Your task to perform on an android device: turn off location history Image 0: 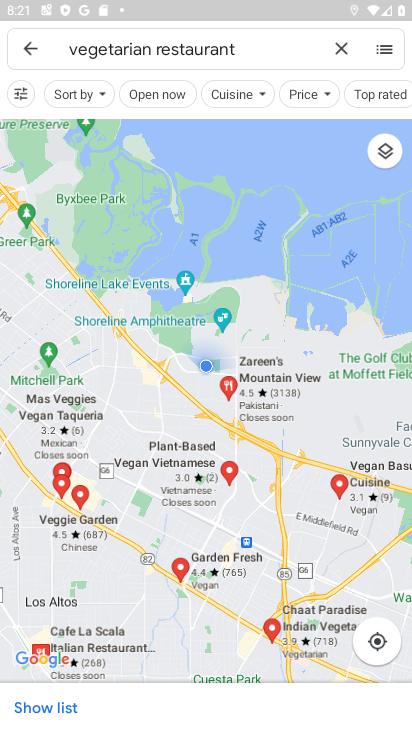
Step 0: press home button
Your task to perform on an android device: turn off location history Image 1: 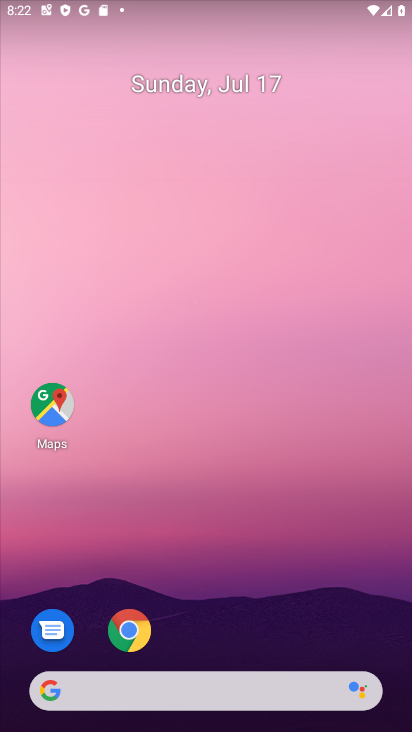
Step 1: drag from (178, 634) to (180, 175)
Your task to perform on an android device: turn off location history Image 2: 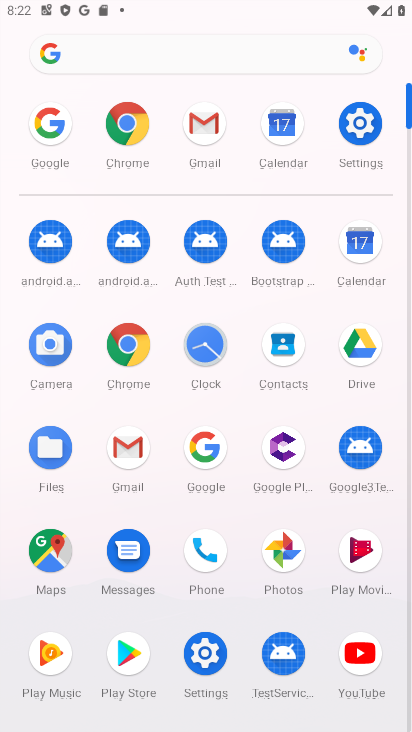
Step 2: click (367, 126)
Your task to perform on an android device: turn off location history Image 3: 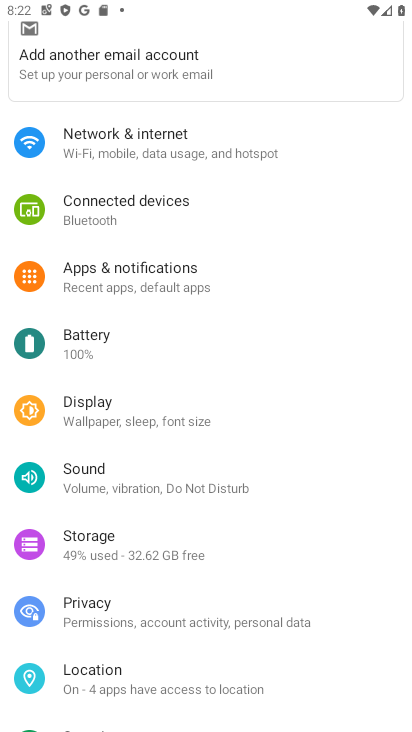
Step 3: click (350, 130)
Your task to perform on an android device: turn off location history Image 4: 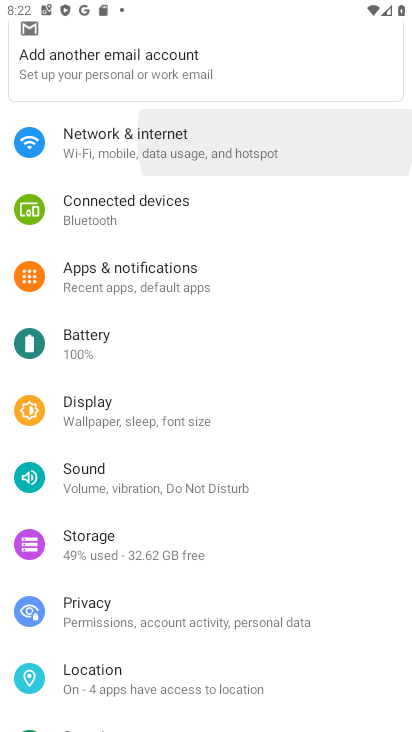
Step 4: click (364, 130)
Your task to perform on an android device: turn off location history Image 5: 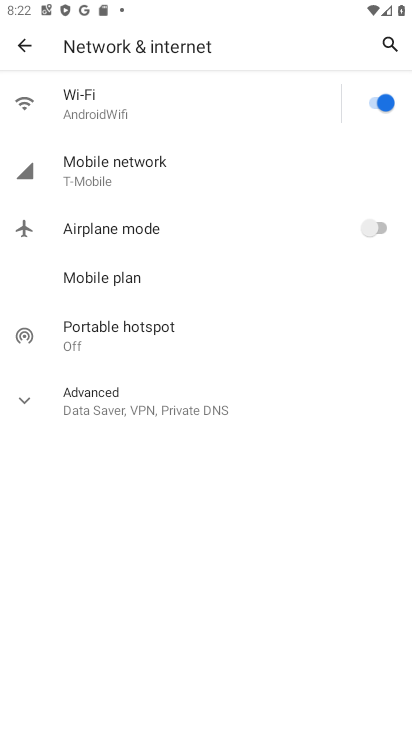
Step 5: click (23, 41)
Your task to perform on an android device: turn off location history Image 6: 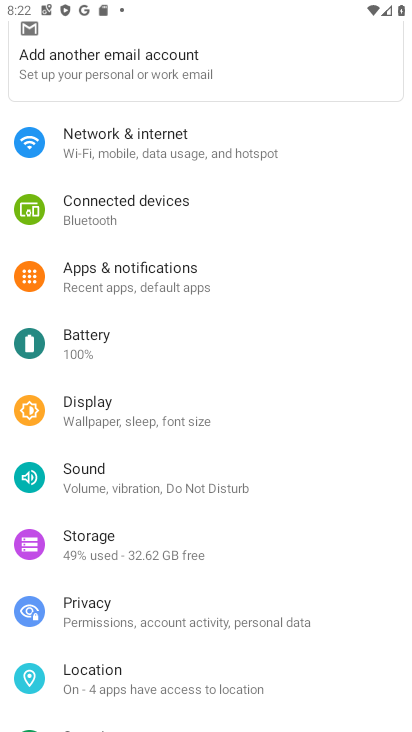
Step 6: click (23, 41)
Your task to perform on an android device: turn off location history Image 7: 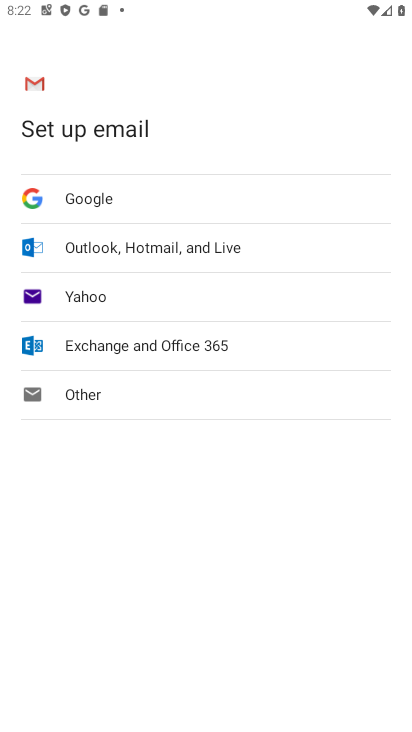
Step 7: press home button
Your task to perform on an android device: turn off location history Image 8: 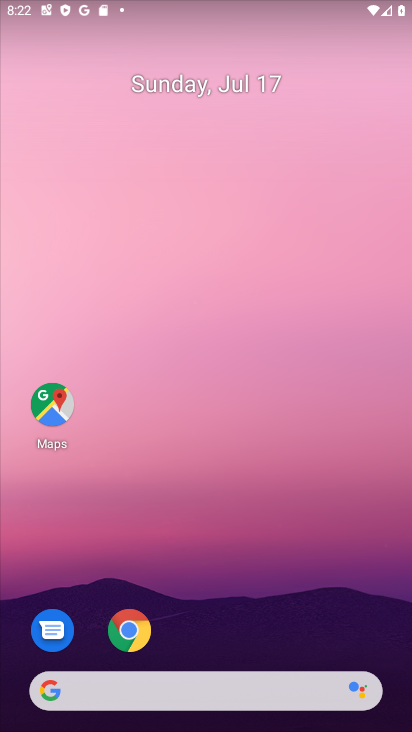
Step 8: drag from (183, 618) to (215, 163)
Your task to perform on an android device: turn off location history Image 9: 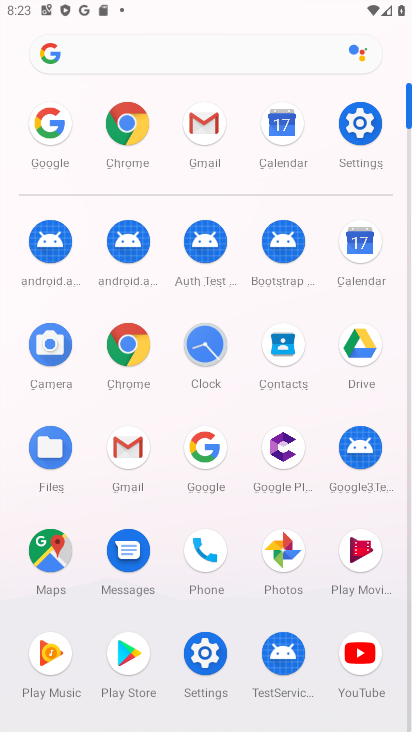
Step 9: click (366, 129)
Your task to perform on an android device: turn off location history Image 10: 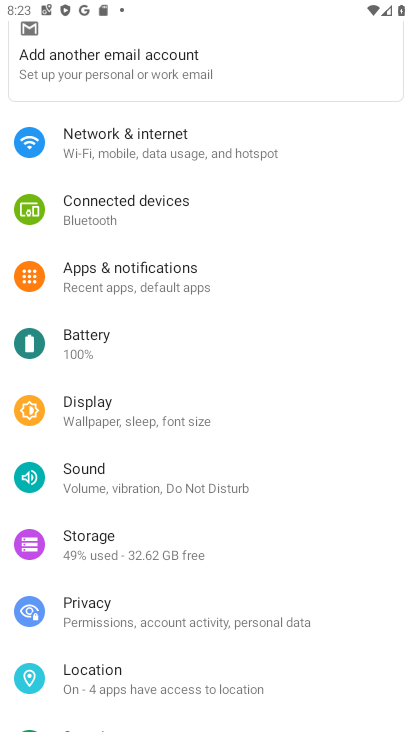
Step 10: click (94, 678)
Your task to perform on an android device: turn off location history Image 11: 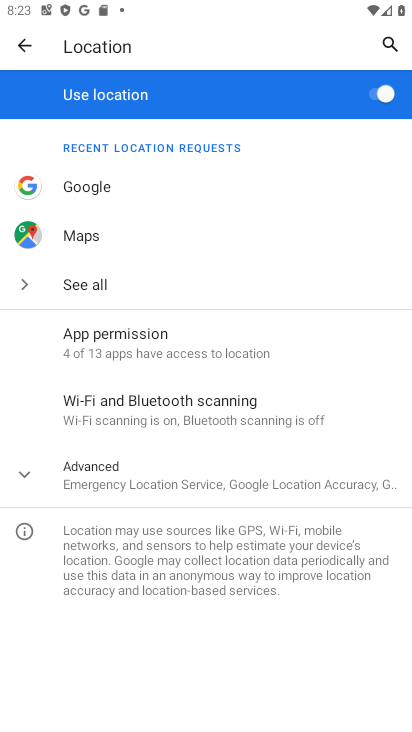
Step 11: click (100, 467)
Your task to perform on an android device: turn off location history Image 12: 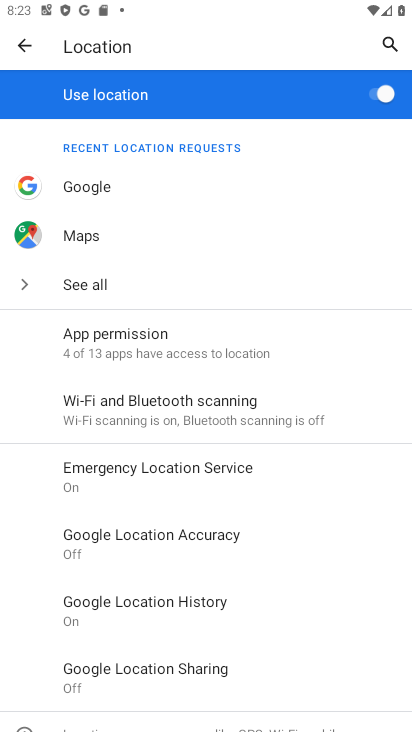
Step 12: click (172, 601)
Your task to perform on an android device: turn off location history Image 13: 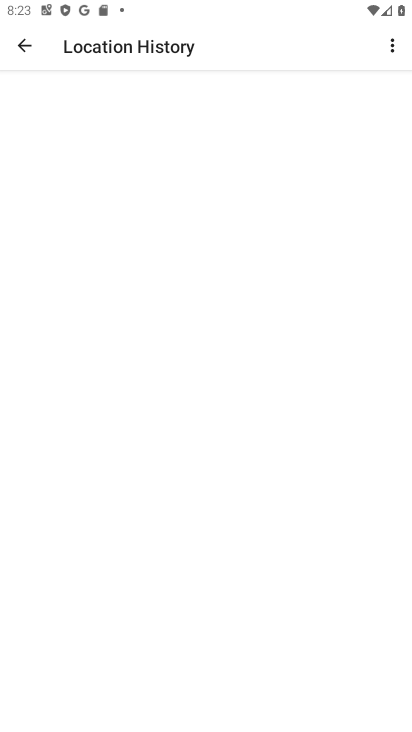
Step 13: click (172, 601)
Your task to perform on an android device: turn off location history Image 14: 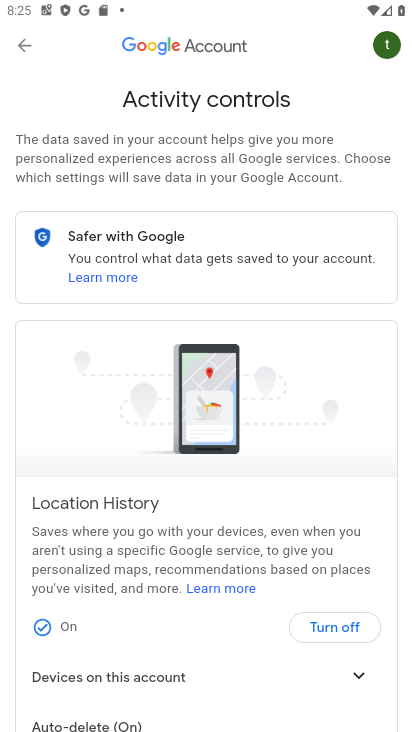
Step 14: click (337, 629)
Your task to perform on an android device: turn off location history Image 15: 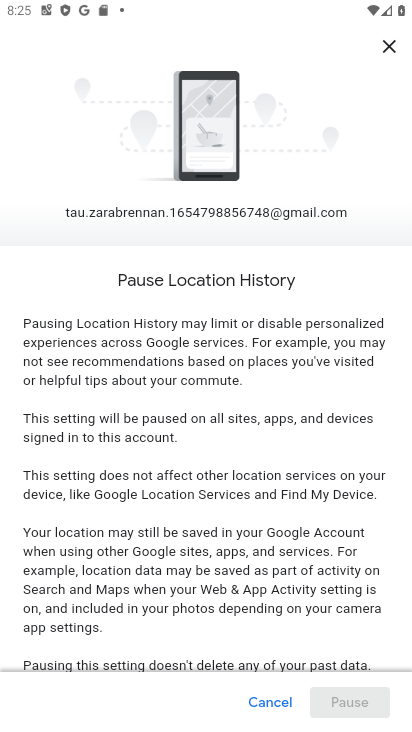
Step 15: drag from (318, 583) to (255, 281)
Your task to perform on an android device: turn off location history Image 16: 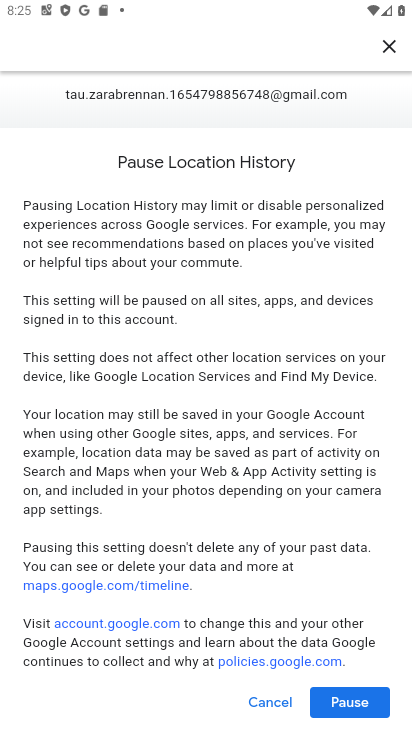
Step 16: click (337, 704)
Your task to perform on an android device: turn off location history Image 17: 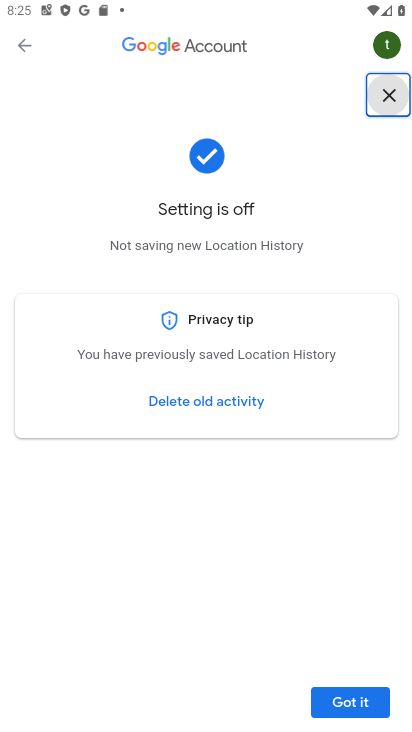
Step 17: click (359, 696)
Your task to perform on an android device: turn off location history Image 18: 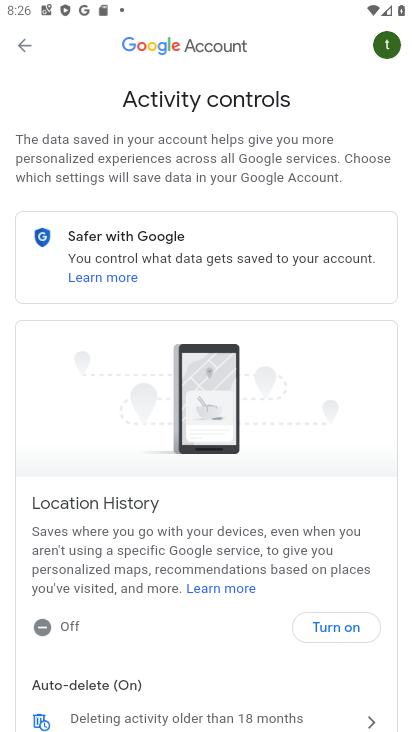
Step 18: task complete